Your task to perform on an android device: Show me popular videos on Youtube Image 0: 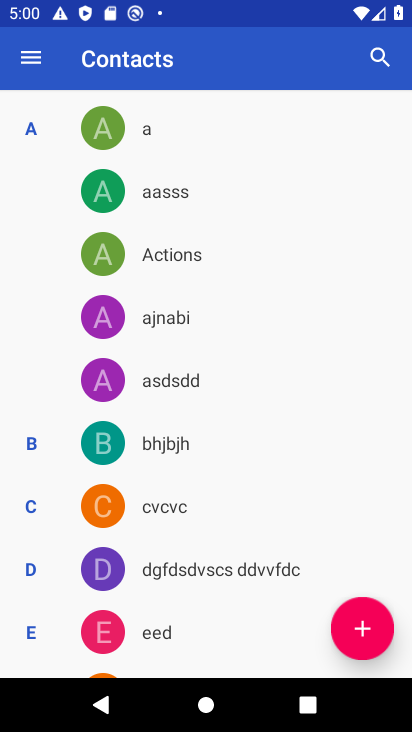
Step 0: press back button
Your task to perform on an android device: Show me popular videos on Youtube Image 1: 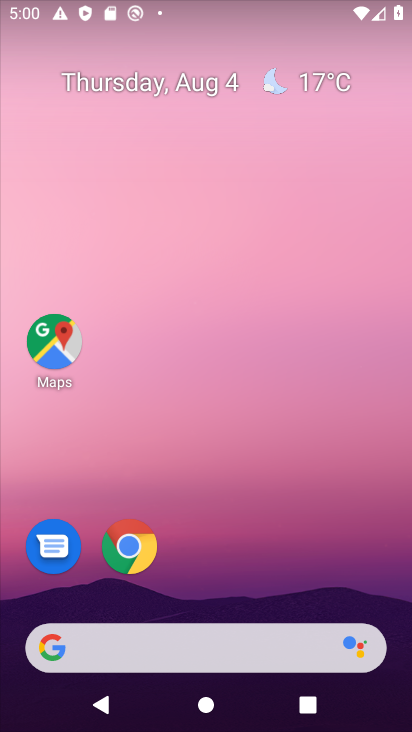
Step 1: drag from (215, 417) to (215, 227)
Your task to perform on an android device: Show me popular videos on Youtube Image 2: 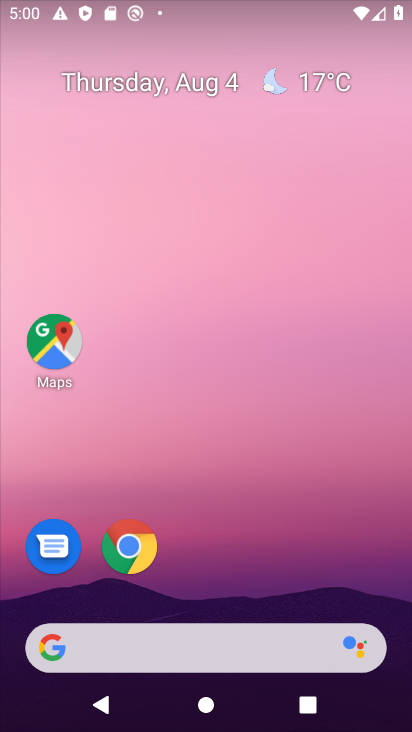
Step 2: drag from (191, 489) to (196, 38)
Your task to perform on an android device: Show me popular videos on Youtube Image 3: 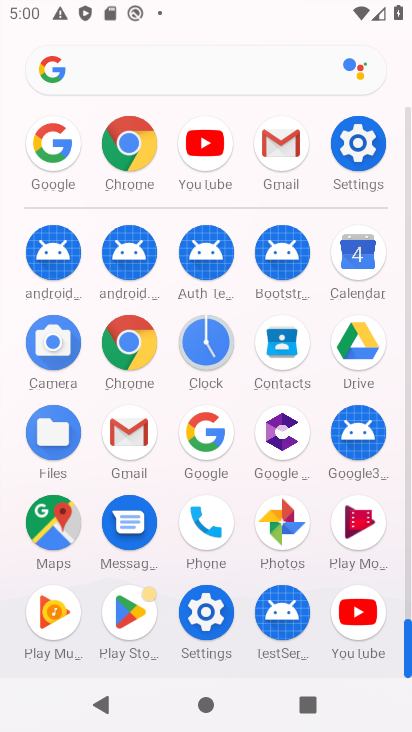
Step 3: click (353, 618)
Your task to perform on an android device: Show me popular videos on Youtube Image 4: 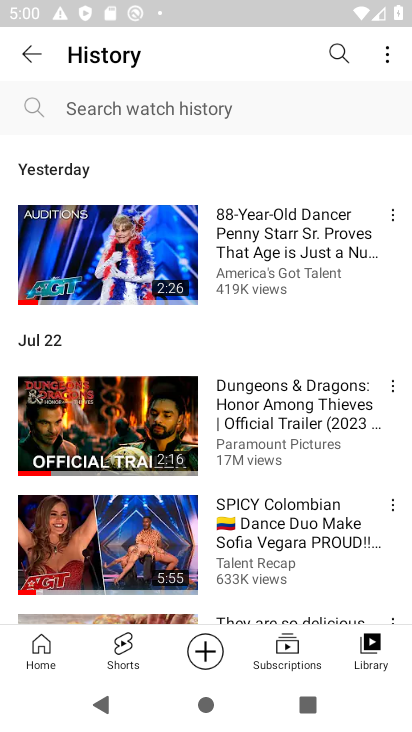
Step 4: click (39, 657)
Your task to perform on an android device: Show me popular videos on Youtube Image 5: 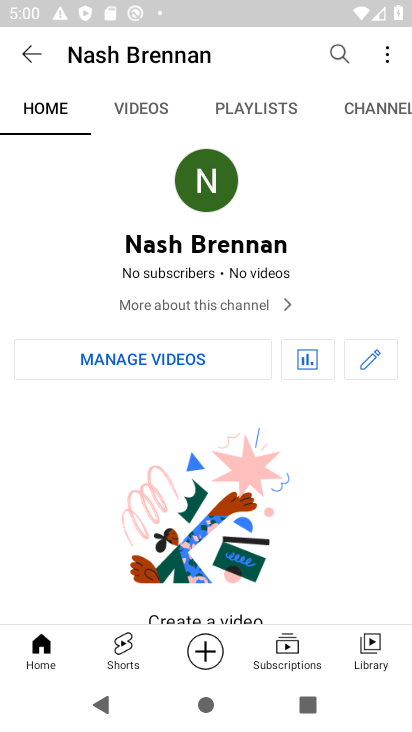
Step 5: click (153, 99)
Your task to perform on an android device: Show me popular videos on Youtube Image 6: 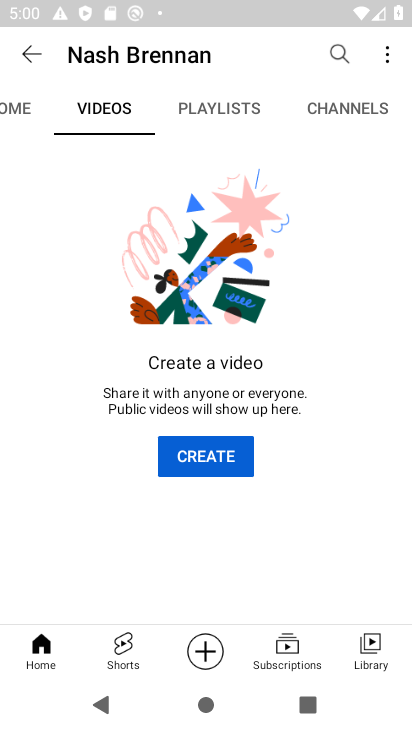
Step 6: click (31, 54)
Your task to perform on an android device: Show me popular videos on Youtube Image 7: 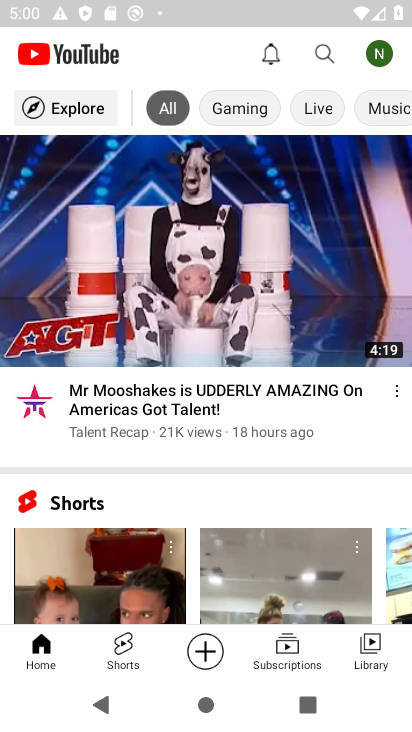
Step 7: task complete